Your task to perform on an android device: find photos in the google photos app Image 0: 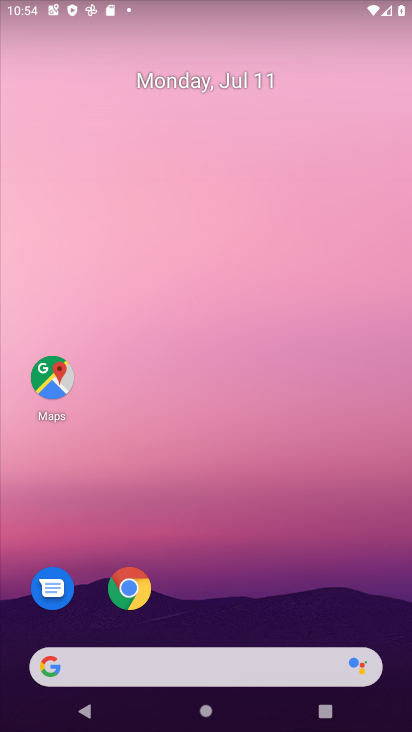
Step 0: drag from (251, 649) to (274, 13)
Your task to perform on an android device: find photos in the google photos app Image 1: 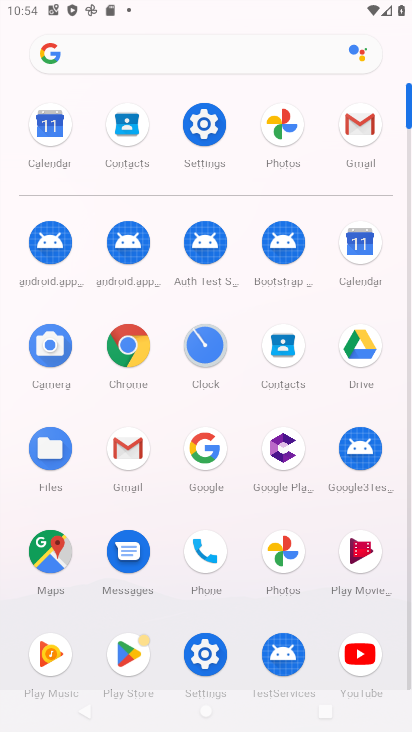
Step 1: click (294, 536)
Your task to perform on an android device: find photos in the google photos app Image 2: 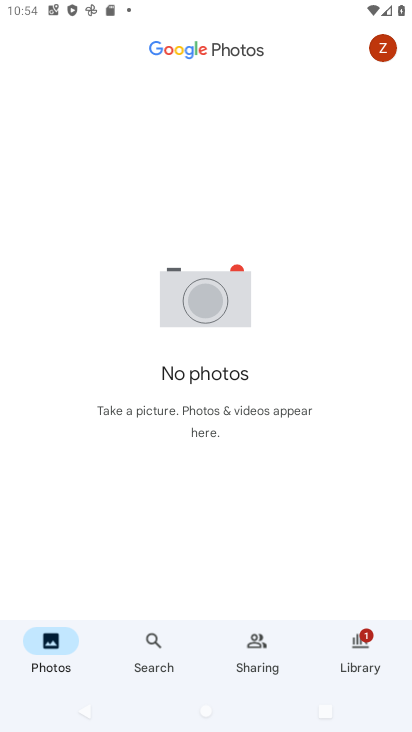
Step 2: click (149, 637)
Your task to perform on an android device: find photos in the google photos app Image 3: 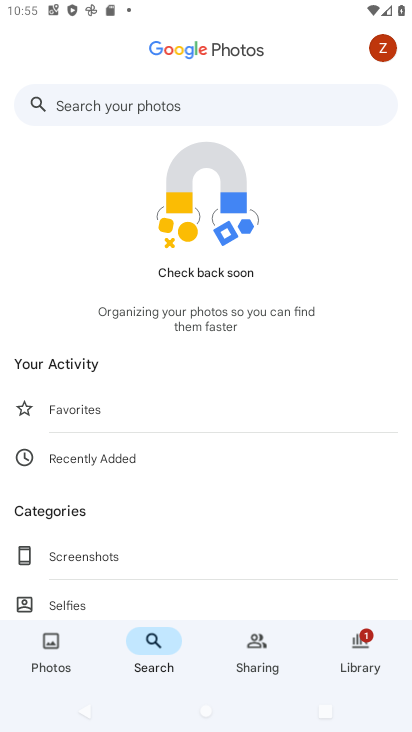
Step 3: task complete